Your task to perform on an android device: open device folders in google photos Image 0: 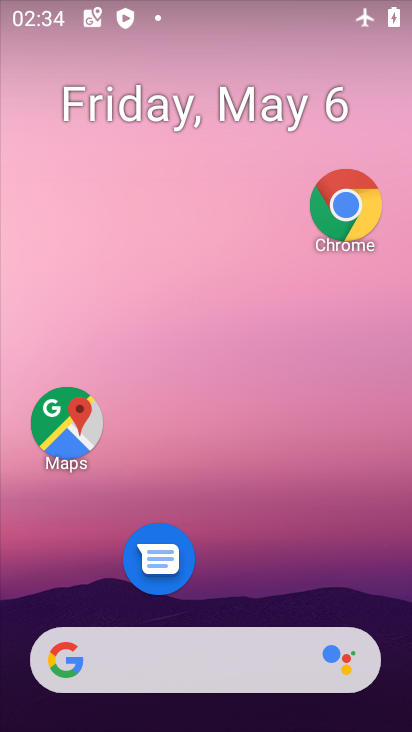
Step 0: drag from (224, 663) to (352, 5)
Your task to perform on an android device: open device folders in google photos Image 1: 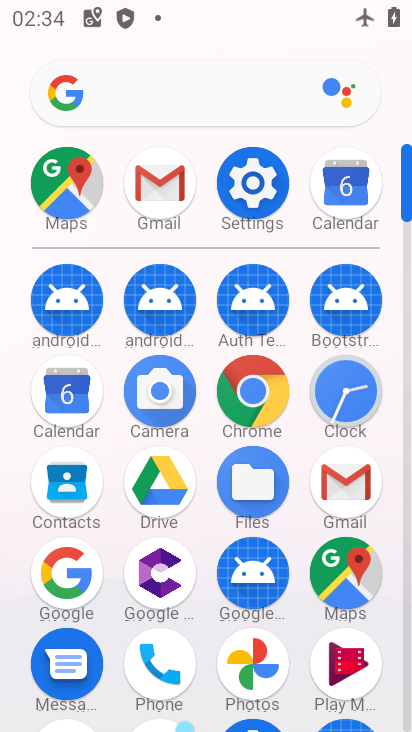
Step 1: click (245, 662)
Your task to perform on an android device: open device folders in google photos Image 2: 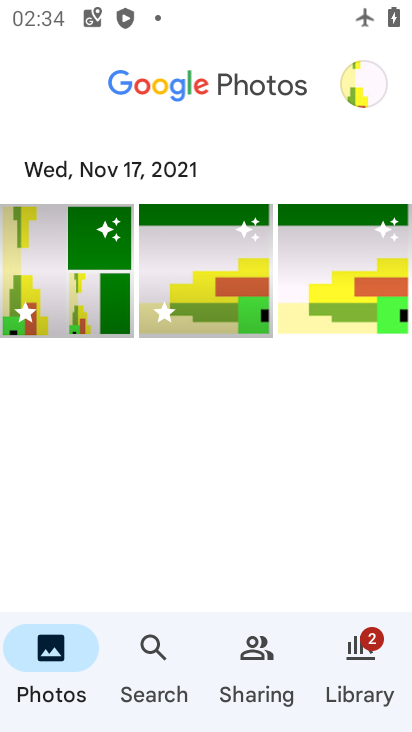
Step 2: click (364, 95)
Your task to perform on an android device: open device folders in google photos Image 3: 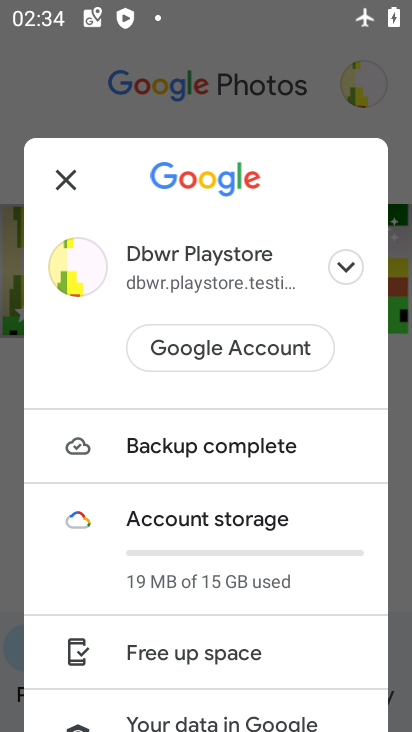
Step 3: drag from (178, 668) to (290, 369)
Your task to perform on an android device: open device folders in google photos Image 4: 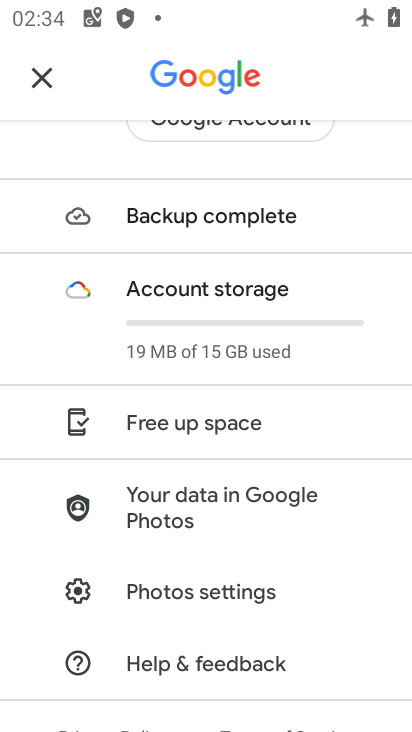
Step 4: click (226, 587)
Your task to perform on an android device: open device folders in google photos Image 5: 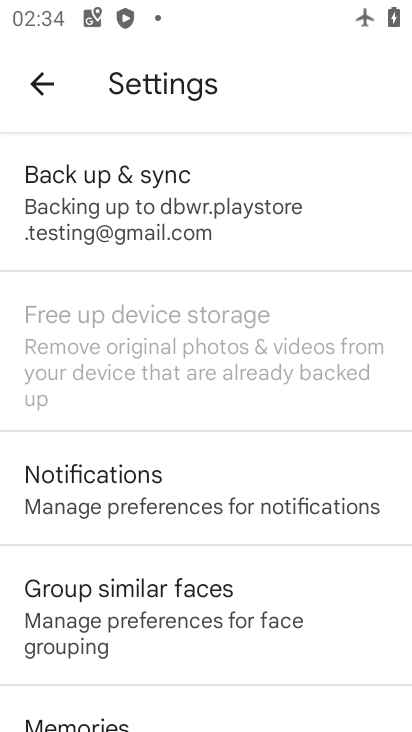
Step 5: task complete